Your task to perform on an android device: Turn on the flashlight Image 0: 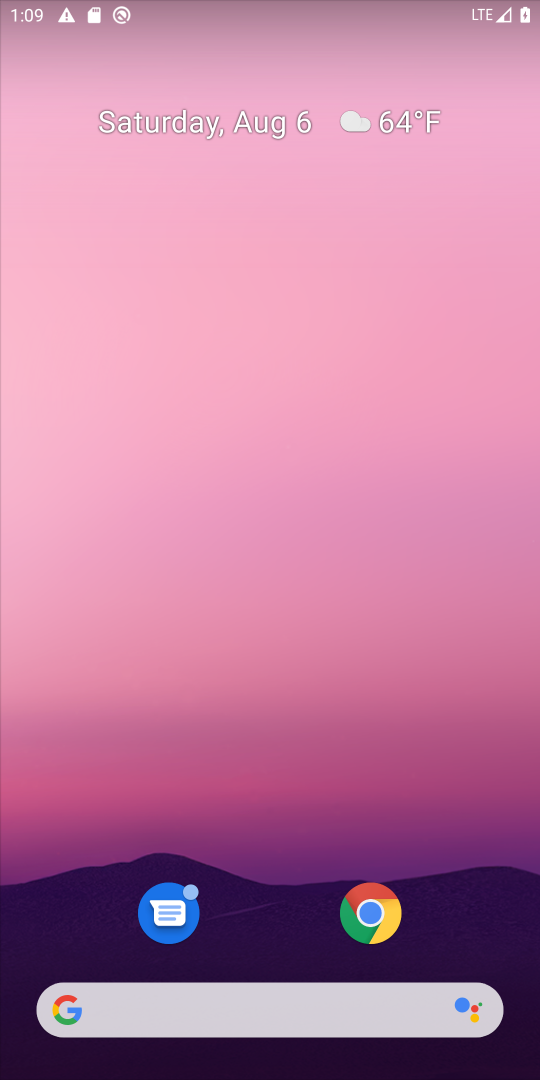
Step 0: press home button
Your task to perform on an android device: Turn on the flashlight Image 1: 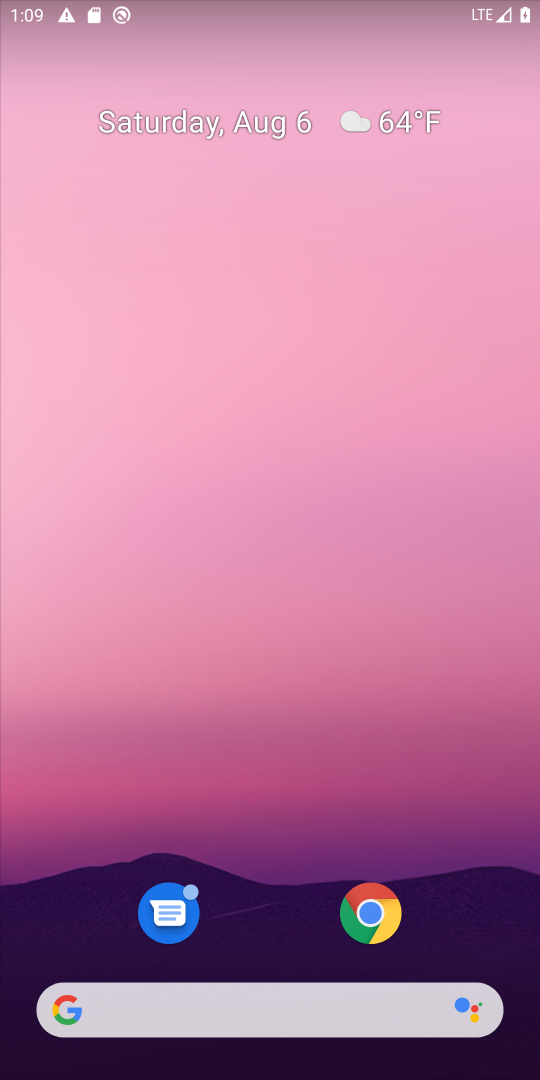
Step 1: drag from (256, 16) to (219, 590)
Your task to perform on an android device: Turn on the flashlight Image 2: 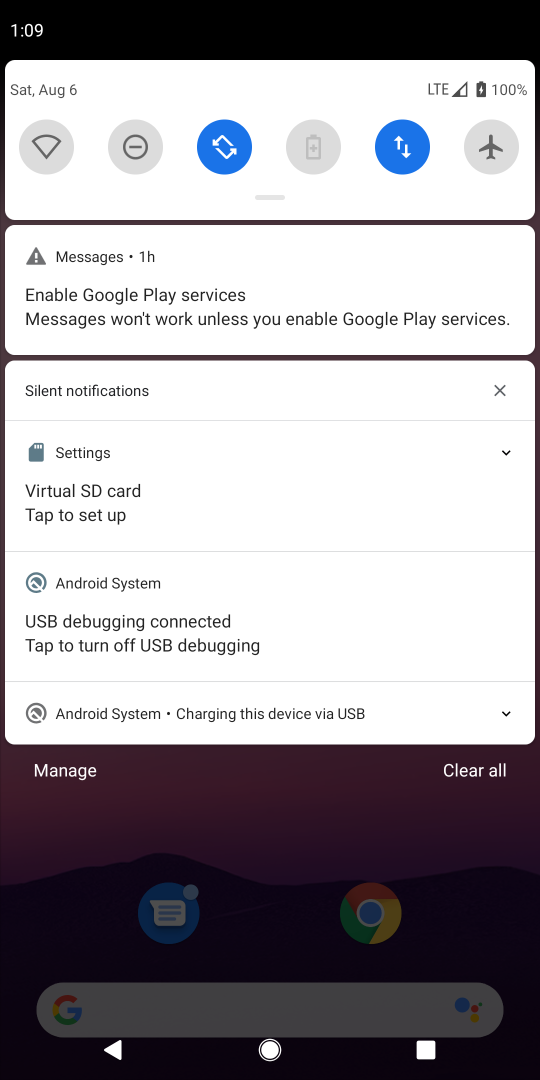
Step 2: drag from (261, 87) to (483, 577)
Your task to perform on an android device: Turn on the flashlight Image 3: 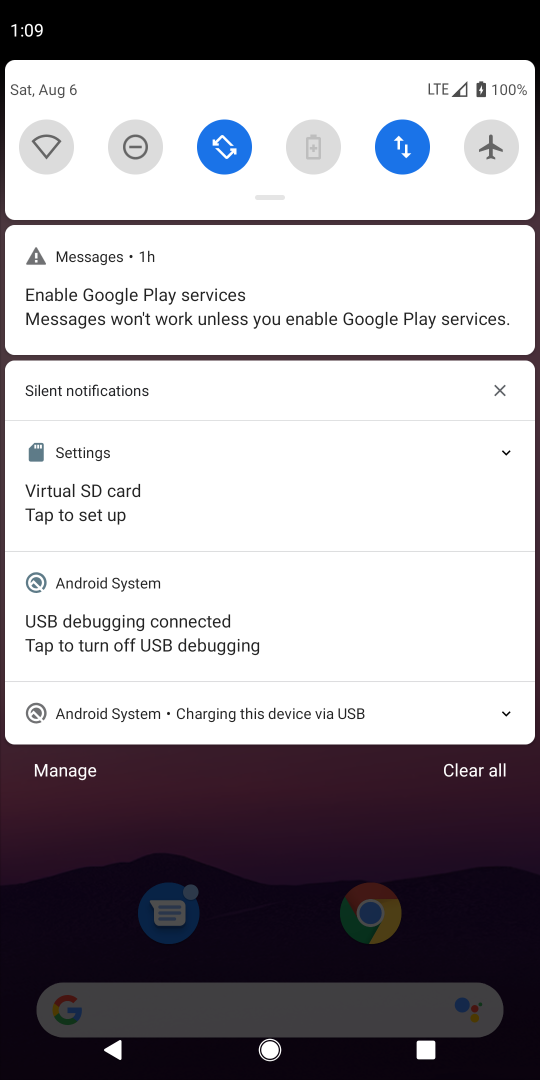
Step 3: drag from (280, 419) to (258, 576)
Your task to perform on an android device: Turn on the flashlight Image 4: 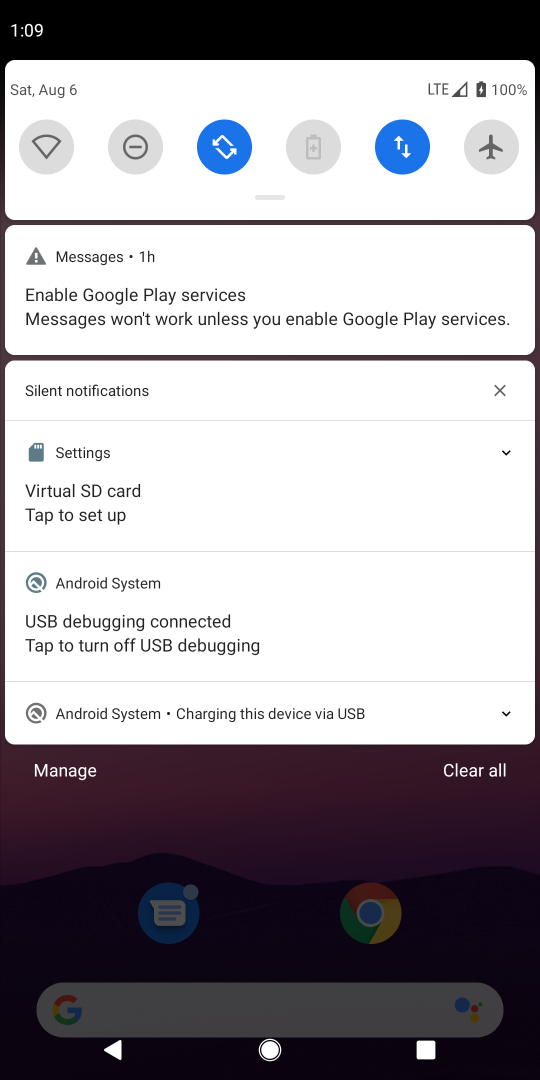
Step 4: drag from (259, 81) to (260, 585)
Your task to perform on an android device: Turn on the flashlight Image 5: 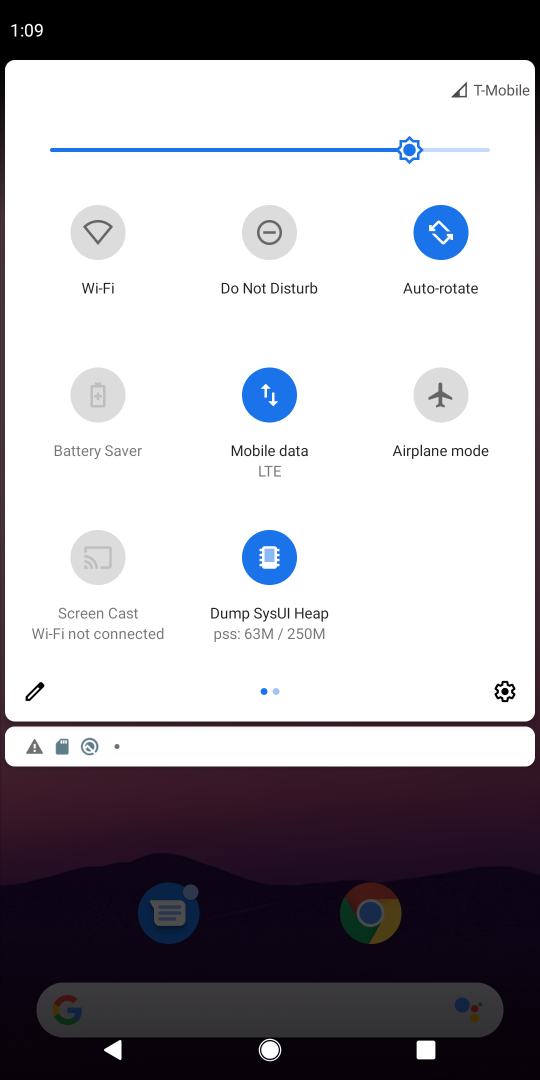
Step 5: click (28, 651)
Your task to perform on an android device: Turn on the flashlight Image 6: 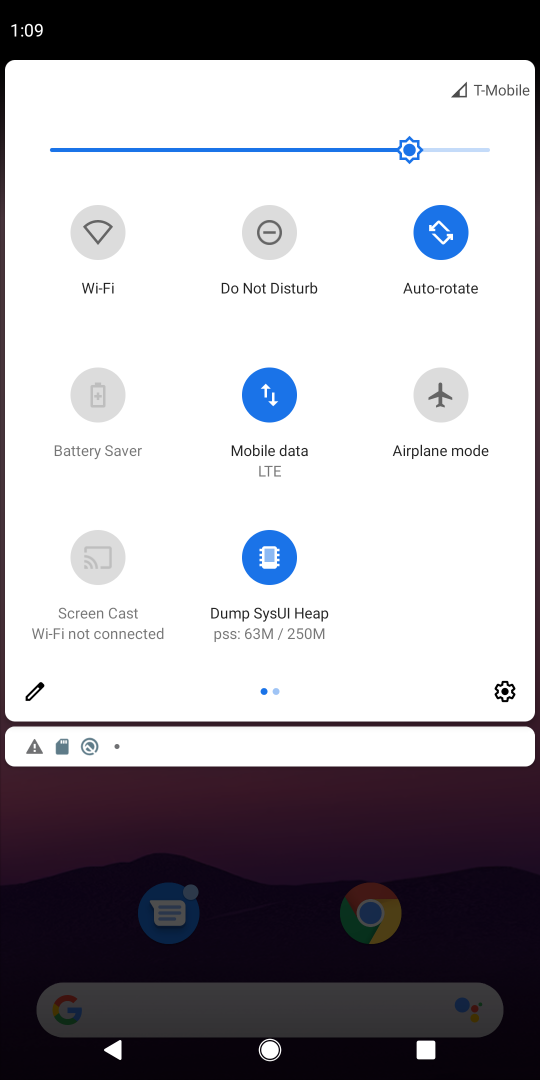
Step 6: click (26, 686)
Your task to perform on an android device: Turn on the flashlight Image 7: 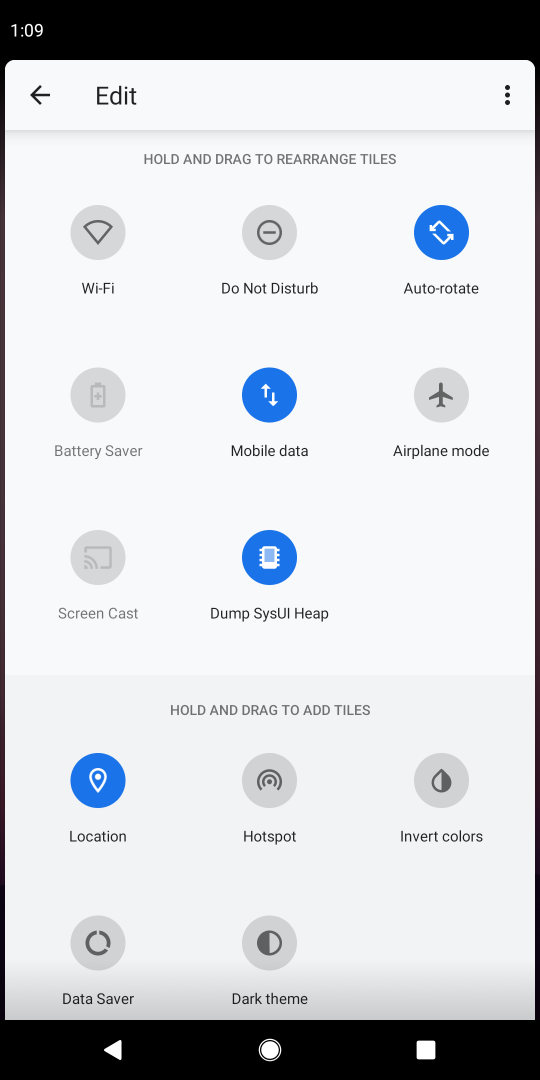
Step 7: task complete